Your task to perform on an android device: View the shopping cart on ebay. Image 0: 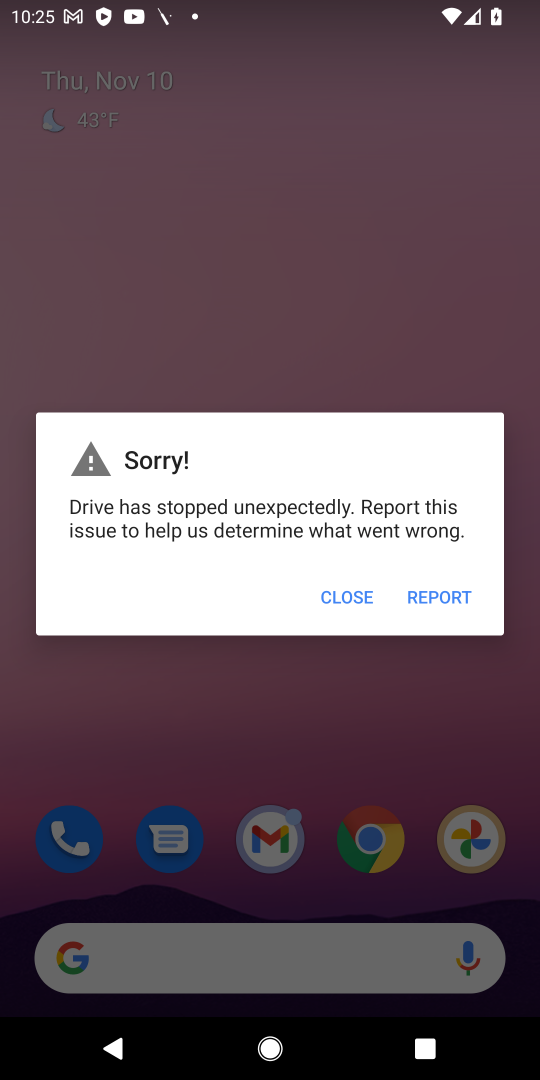
Step 0: press home button
Your task to perform on an android device: View the shopping cart on ebay. Image 1: 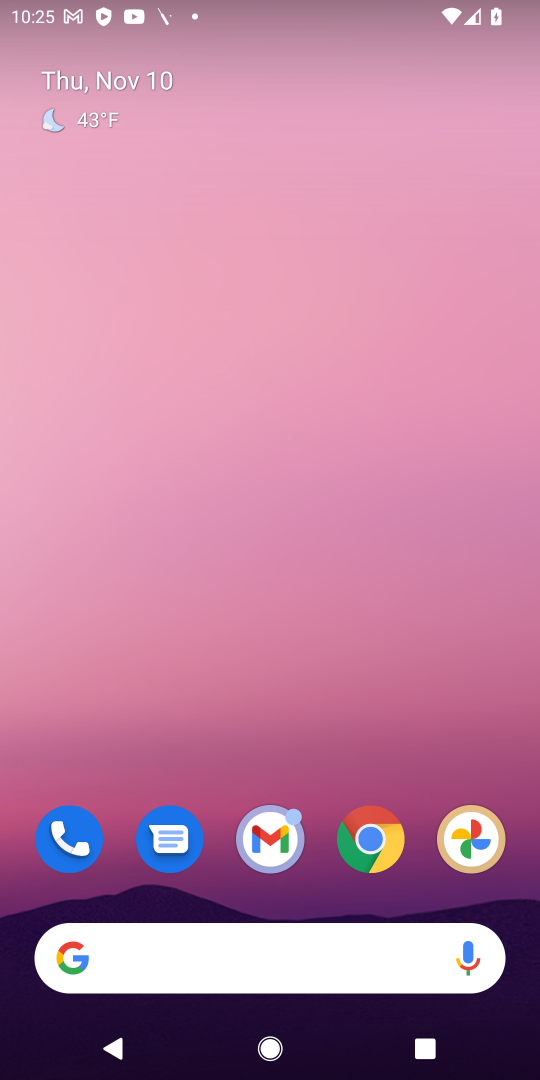
Step 1: click (377, 845)
Your task to perform on an android device: View the shopping cart on ebay. Image 2: 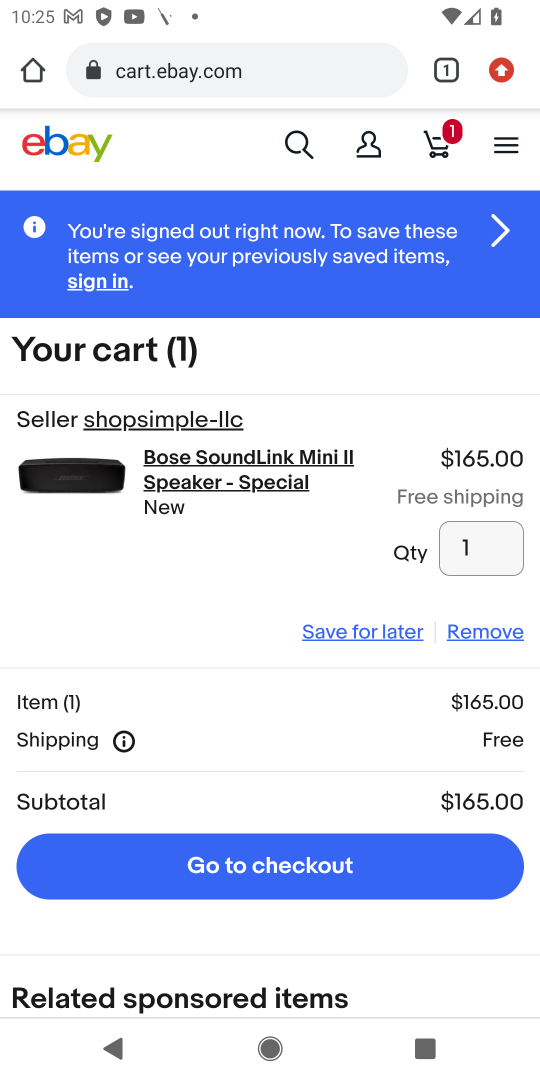
Step 2: click (434, 144)
Your task to perform on an android device: View the shopping cart on ebay. Image 3: 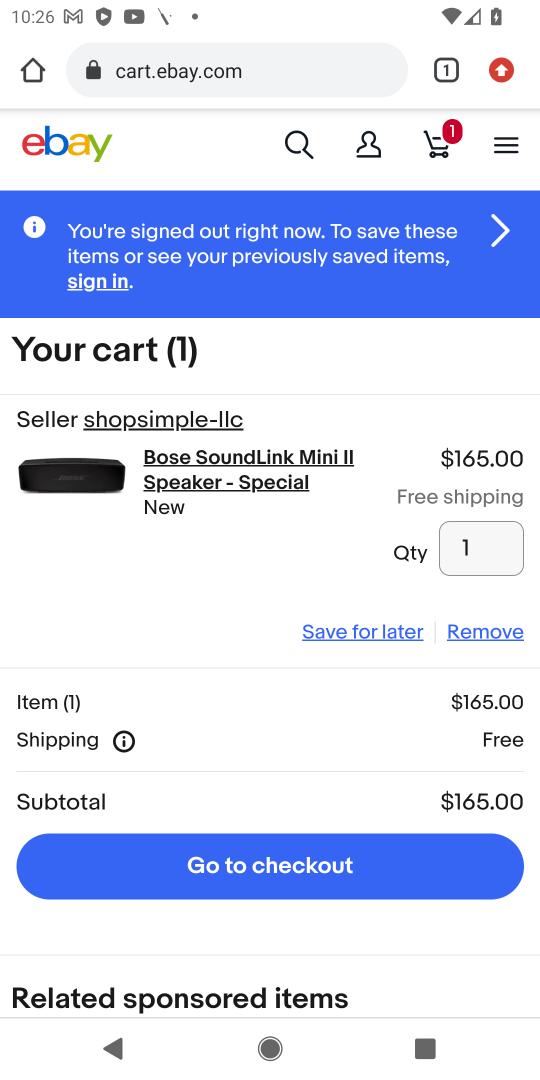
Step 3: task complete